Your task to perform on an android device: Open calendar and show me the second week of next month Image 0: 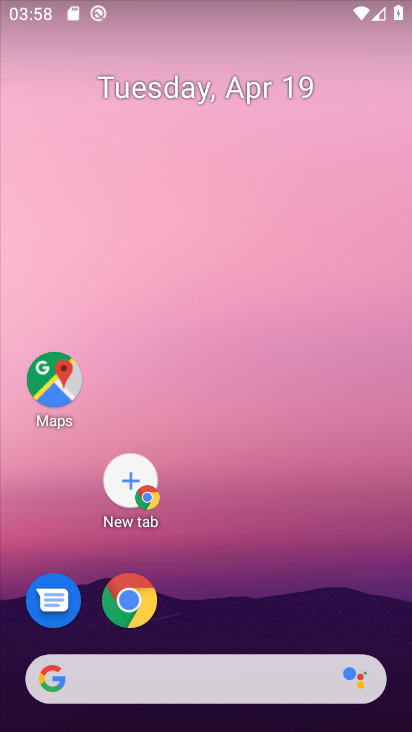
Step 0: click (196, 96)
Your task to perform on an android device: Open calendar and show me the second week of next month Image 1: 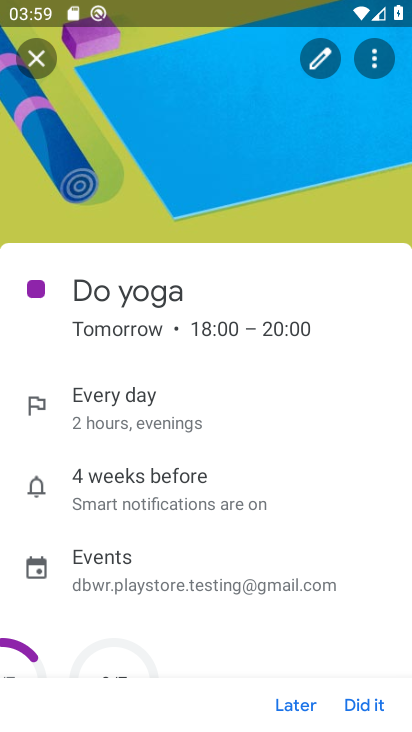
Step 1: click (373, 701)
Your task to perform on an android device: Open calendar and show me the second week of next month Image 2: 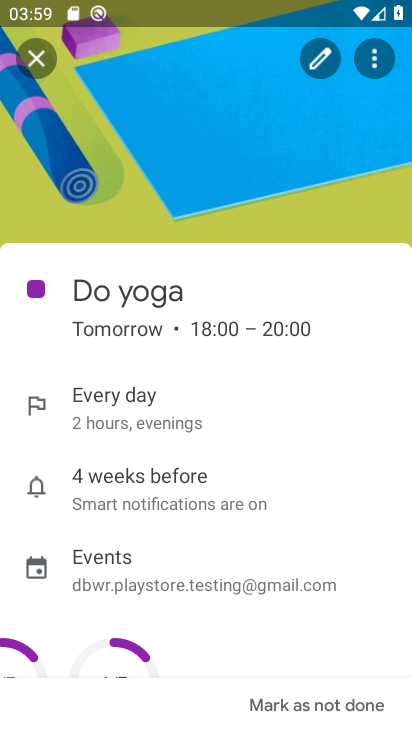
Step 2: click (35, 54)
Your task to perform on an android device: Open calendar and show me the second week of next month Image 3: 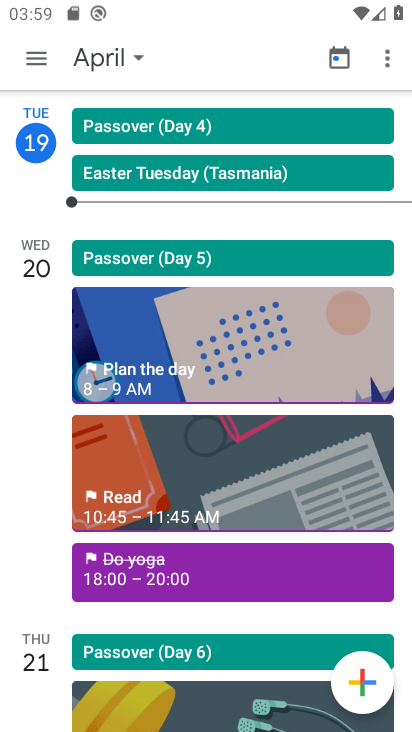
Step 3: click (106, 46)
Your task to perform on an android device: Open calendar and show me the second week of next month Image 4: 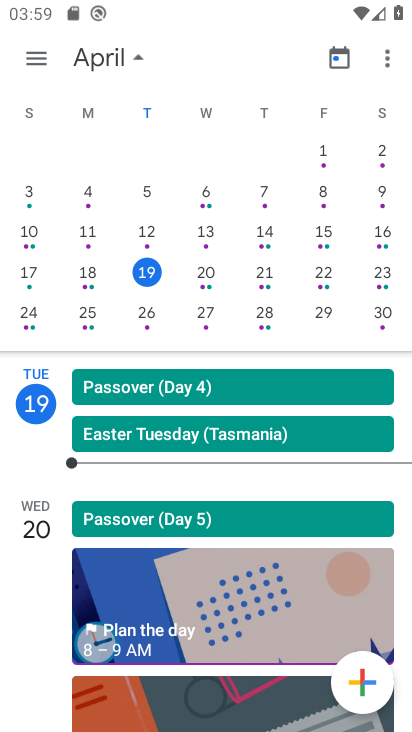
Step 4: drag from (382, 264) to (20, 231)
Your task to perform on an android device: Open calendar and show me the second week of next month Image 5: 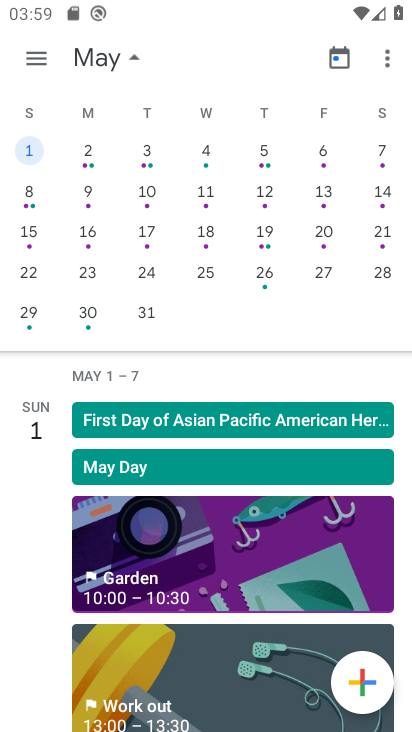
Step 5: click (226, 192)
Your task to perform on an android device: Open calendar and show me the second week of next month Image 6: 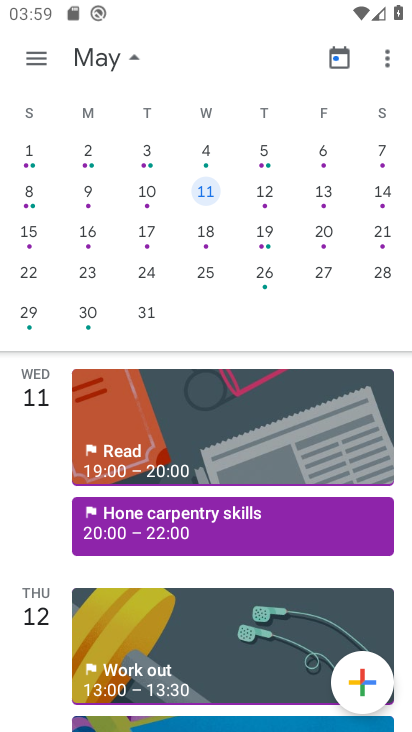
Step 6: task complete